Your task to perform on an android device: Open display settings Image 0: 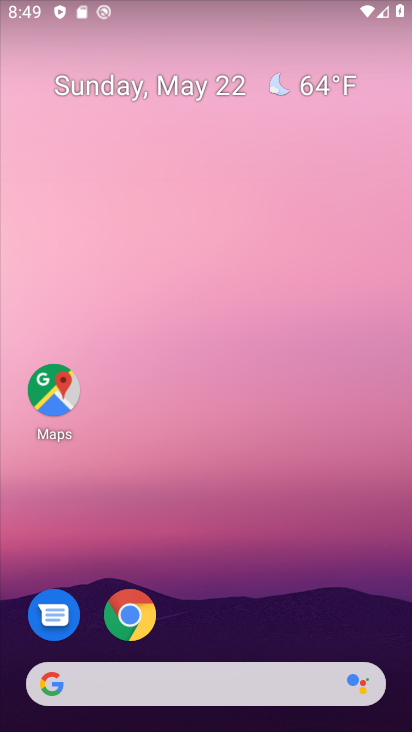
Step 0: drag from (197, 640) to (215, 183)
Your task to perform on an android device: Open display settings Image 1: 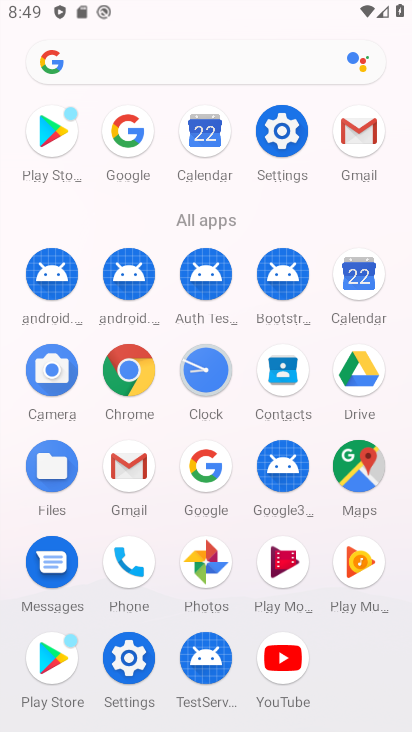
Step 1: click (282, 139)
Your task to perform on an android device: Open display settings Image 2: 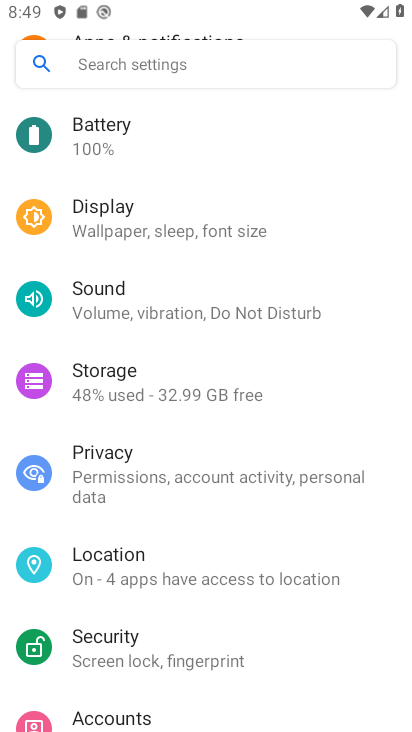
Step 2: click (251, 237)
Your task to perform on an android device: Open display settings Image 3: 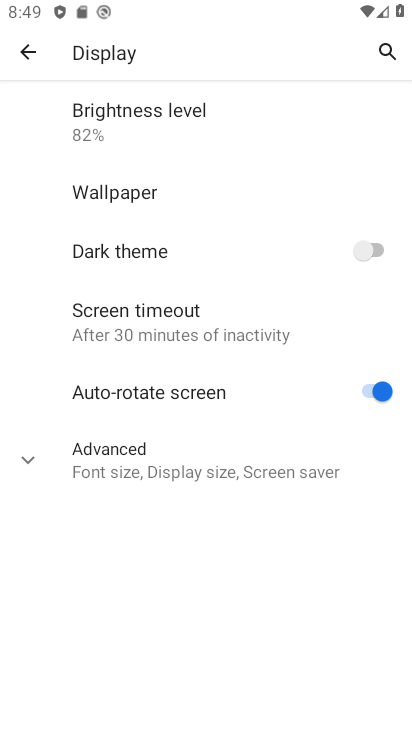
Step 3: task complete